Your task to perform on an android device: Open the calendar app, open the side menu, and click the "Day" option Image 0: 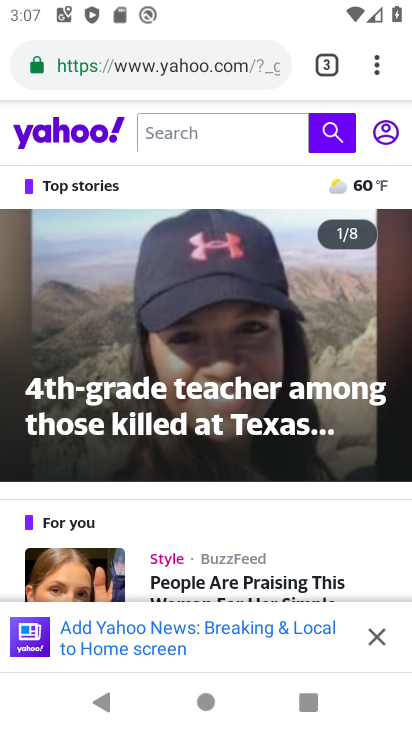
Step 0: press back button
Your task to perform on an android device: Open the calendar app, open the side menu, and click the "Day" option Image 1: 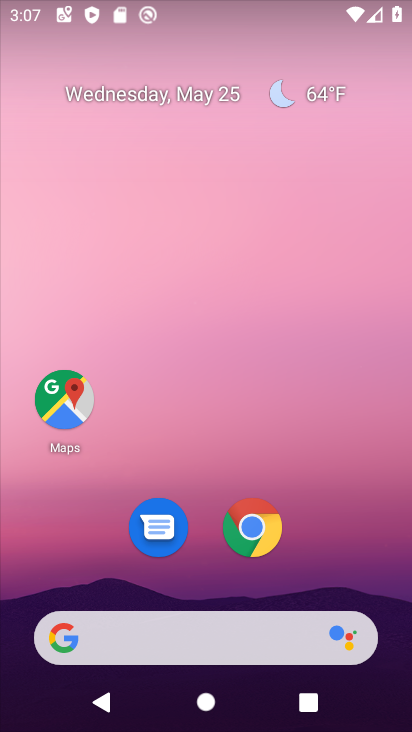
Step 1: drag from (178, 561) to (217, 56)
Your task to perform on an android device: Open the calendar app, open the side menu, and click the "Day" option Image 2: 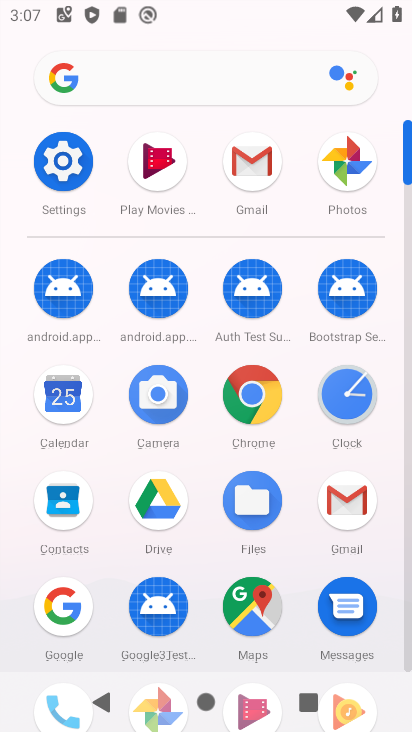
Step 2: click (53, 409)
Your task to perform on an android device: Open the calendar app, open the side menu, and click the "Day" option Image 3: 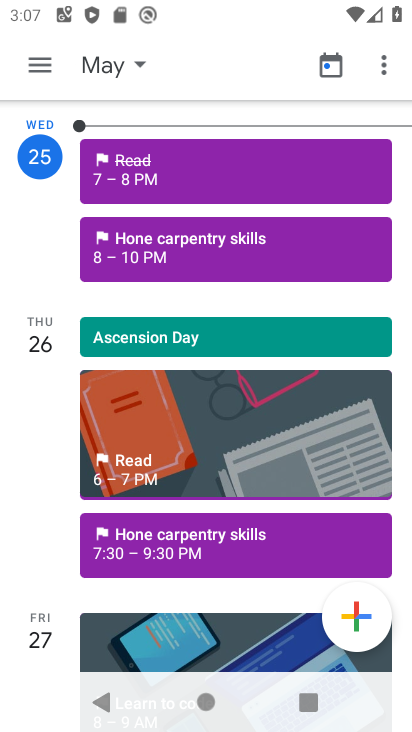
Step 3: click (31, 75)
Your task to perform on an android device: Open the calendar app, open the side menu, and click the "Day" option Image 4: 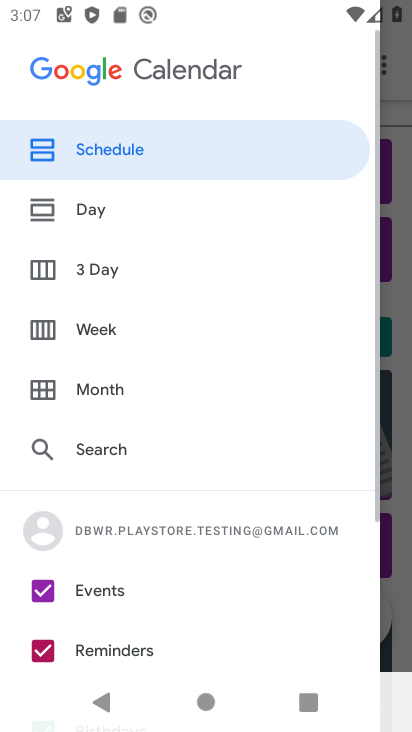
Step 4: click (76, 205)
Your task to perform on an android device: Open the calendar app, open the side menu, and click the "Day" option Image 5: 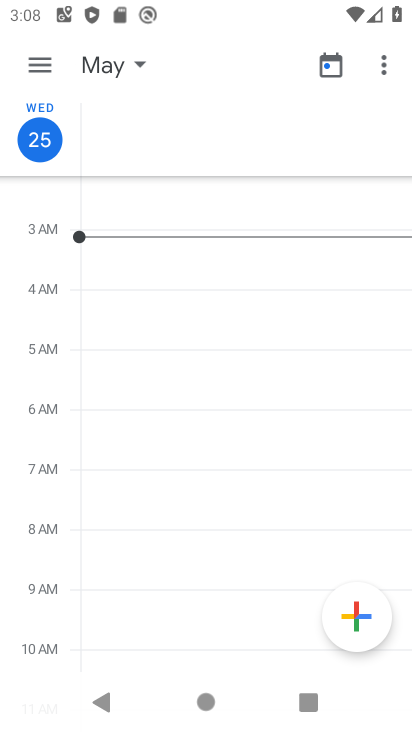
Step 5: task complete